Your task to perform on an android device: see tabs open on other devices in the chrome app Image 0: 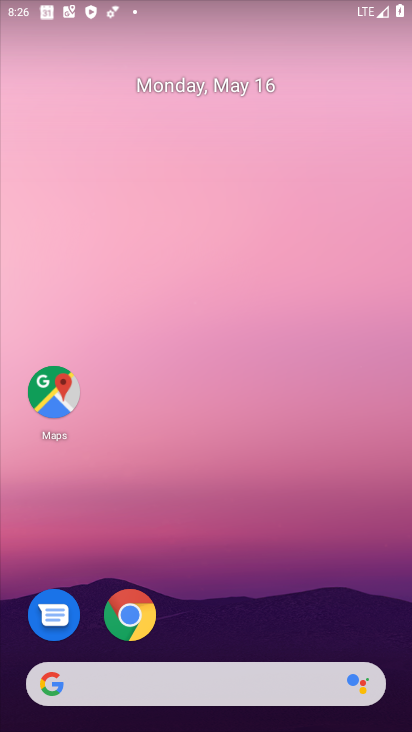
Step 0: drag from (261, 569) to (331, 137)
Your task to perform on an android device: see tabs open on other devices in the chrome app Image 1: 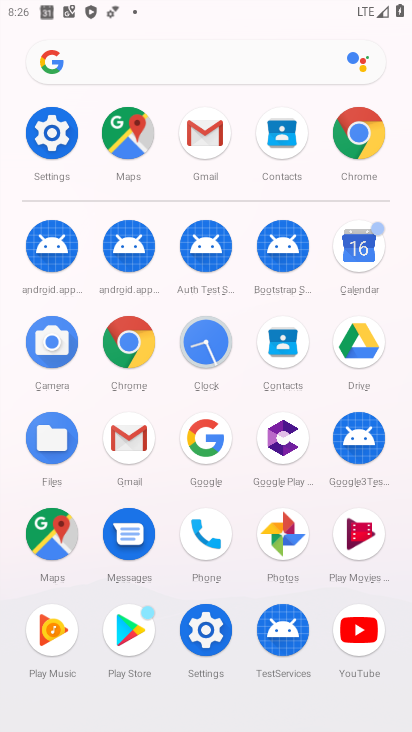
Step 1: click (360, 176)
Your task to perform on an android device: see tabs open on other devices in the chrome app Image 2: 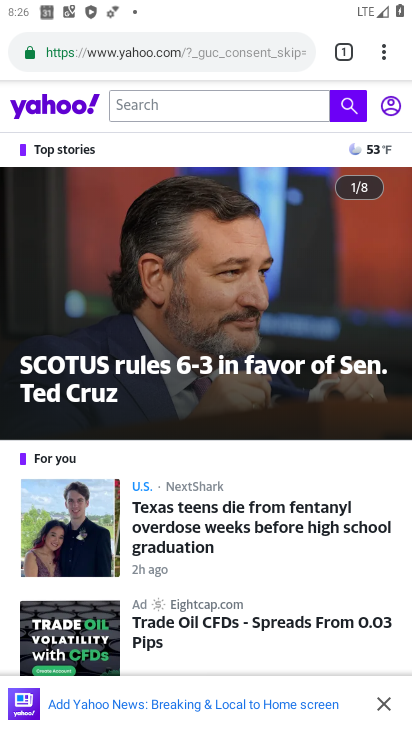
Step 2: click (383, 59)
Your task to perform on an android device: see tabs open on other devices in the chrome app Image 3: 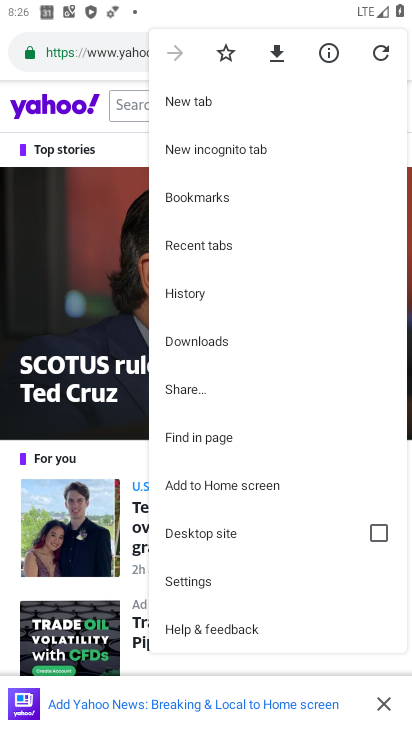
Step 3: click (98, 211)
Your task to perform on an android device: see tabs open on other devices in the chrome app Image 4: 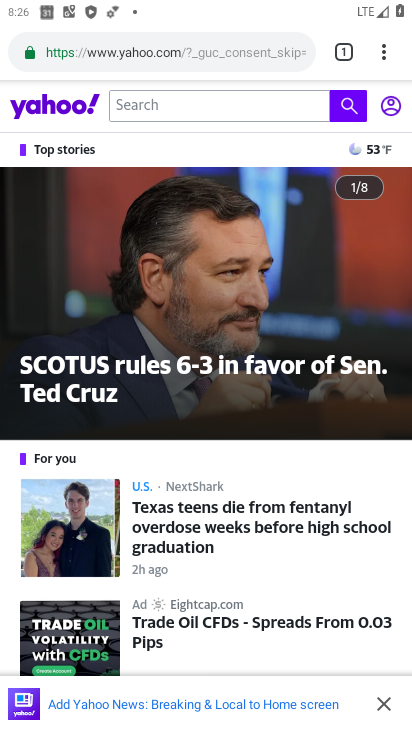
Step 4: task complete